Your task to perform on an android device: move an email to a new category in the gmail app Image 0: 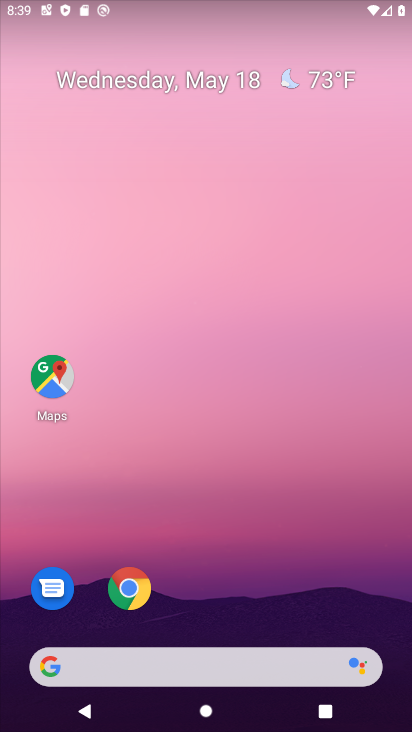
Step 0: press home button
Your task to perform on an android device: move an email to a new category in the gmail app Image 1: 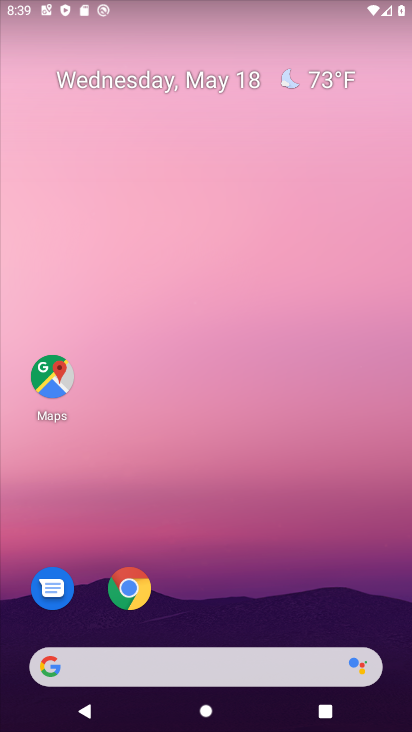
Step 1: drag from (336, 545) to (325, 170)
Your task to perform on an android device: move an email to a new category in the gmail app Image 2: 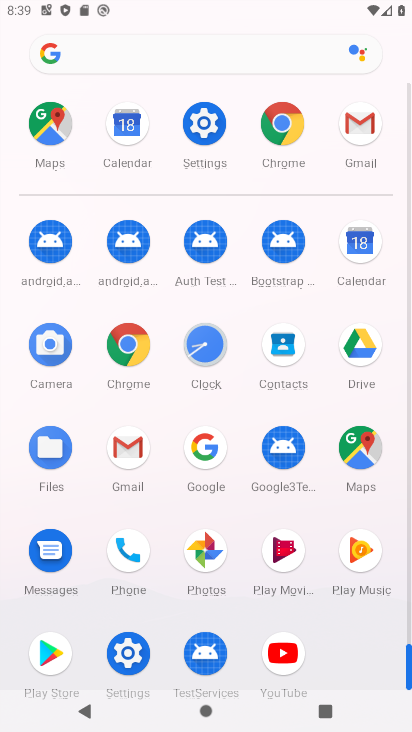
Step 2: click (120, 474)
Your task to perform on an android device: move an email to a new category in the gmail app Image 3: 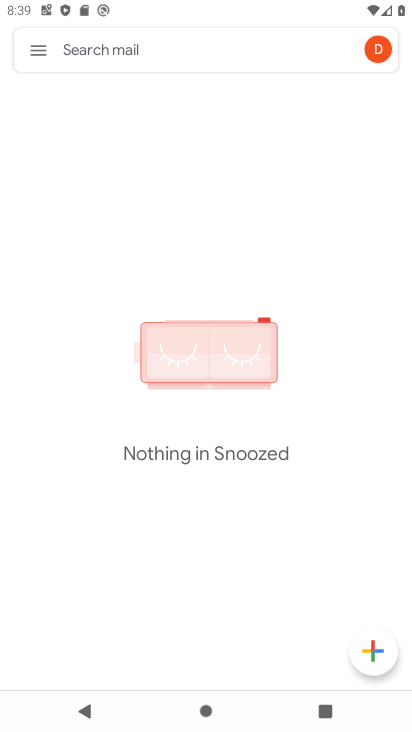
Step 3: click (33, 55)
Your task to perform on an android device: move an email to a new category in the gmail app Image 4: 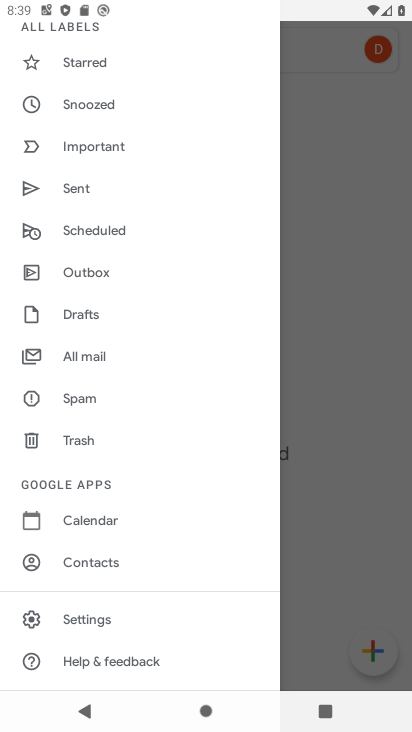
Step 4: click (99, 364)
Your task to perform on an android device: move an email to a new category in the gmail app Image 5: 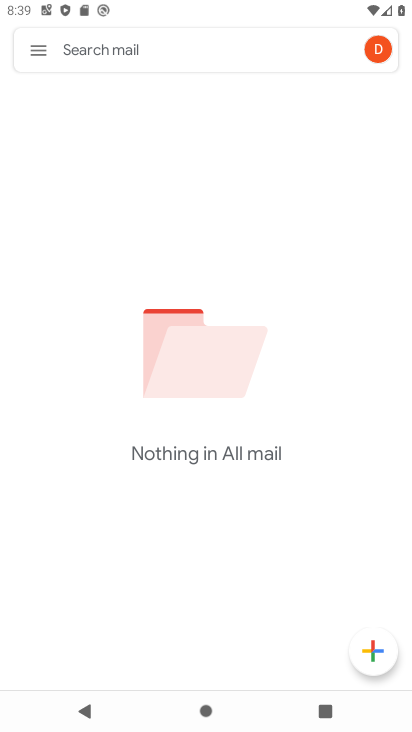
Step 5: task complete